Your task to perform on an android device: Go to wifi settings Image 0: 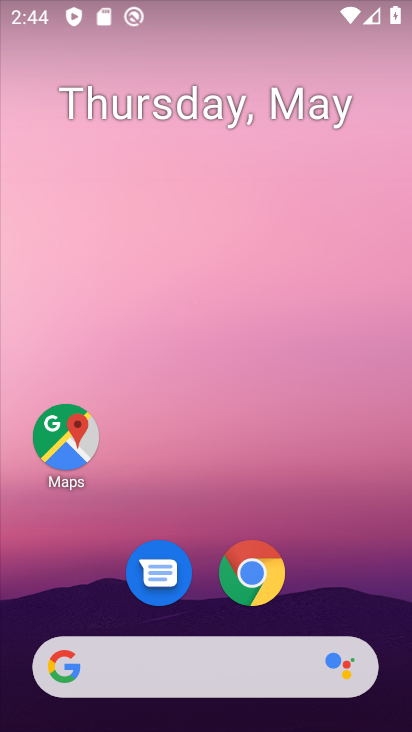
Step 0: drag from (213, 551) to (274, 266)
Your task to perform on an android device: Go to wifi settings Image 1: 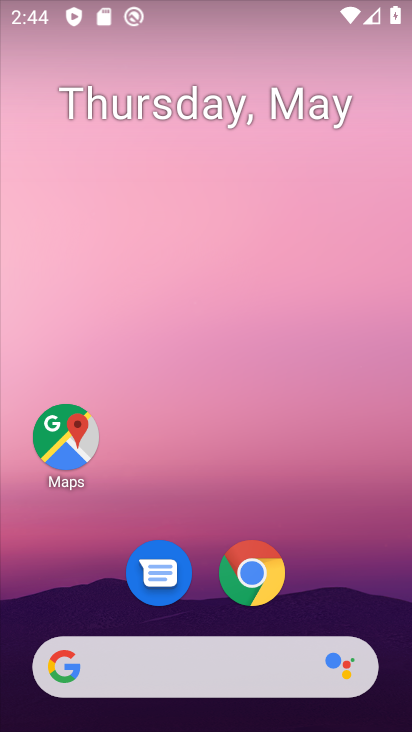
Step 1: drag from (201, 537) to (232, 249)
Your task to perform on an android device: Go to wifi settings Image 2: 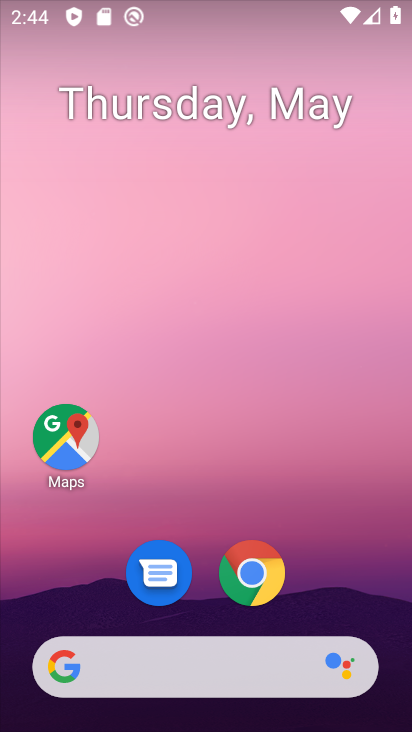
Step 2: drag from (169, 631) to (229, 172)
Your task to perform on an android device: Go to wifi settings Image 3: 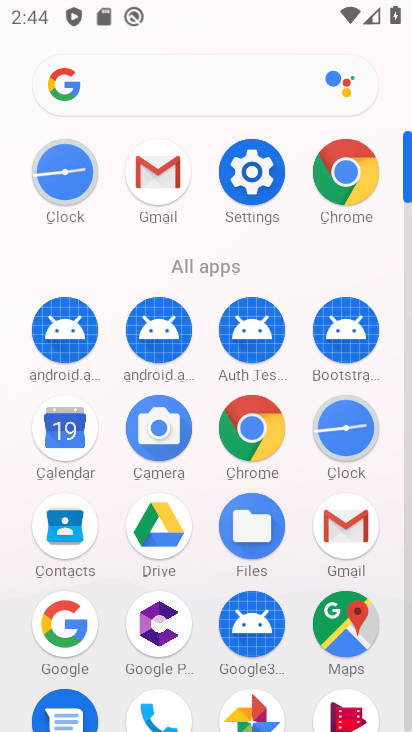
Step 3: click (239, 169)
Your task to perform on an android device: Go to wifi settings Image 4: 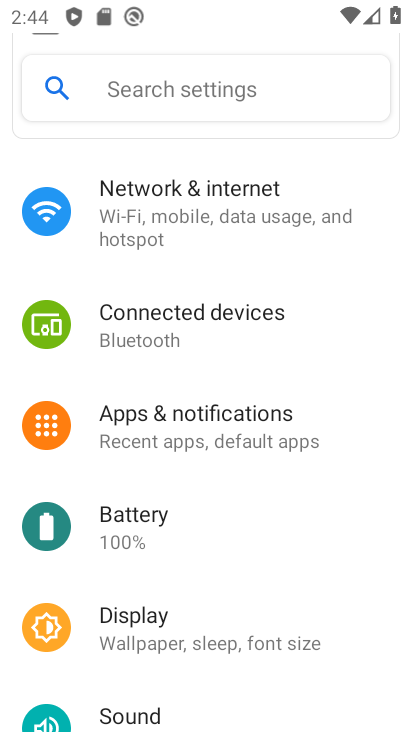
Step 4: click (221, 208)
Your task to perform on an android device: Go to wifi settings Image 5: 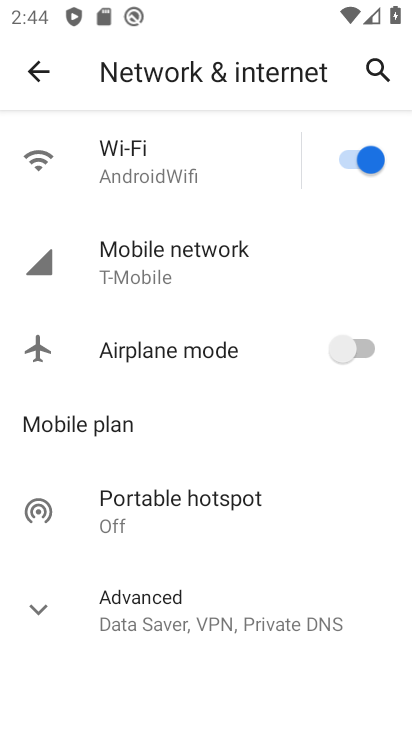
Step 5: click (158, 172)
Your task to perform on an android device: Go to wifi settings Image 6: 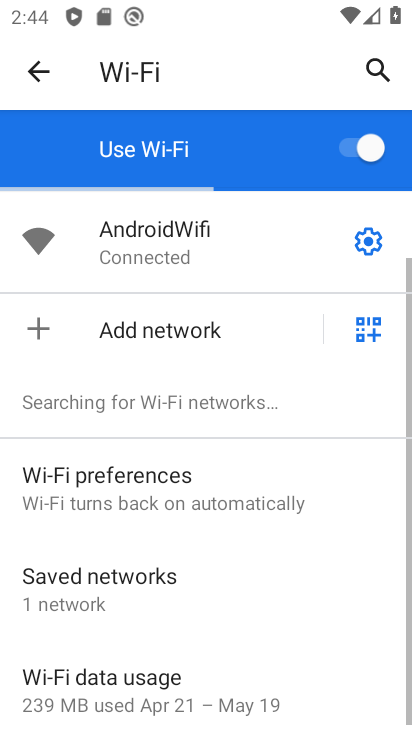
Step 6: click (352, 243)
Your task to perform on an android device: Go to wifi settings Image 7: 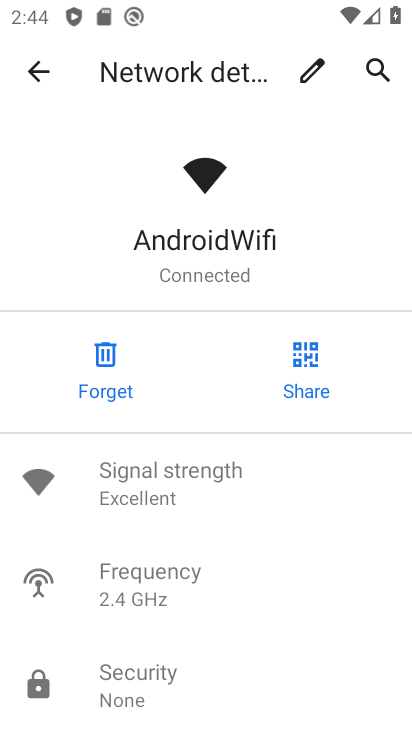
Step 7: drag from (101, 679) to (130, 283)
Your task to perform on an android device: Go to wifi settings Image 8: 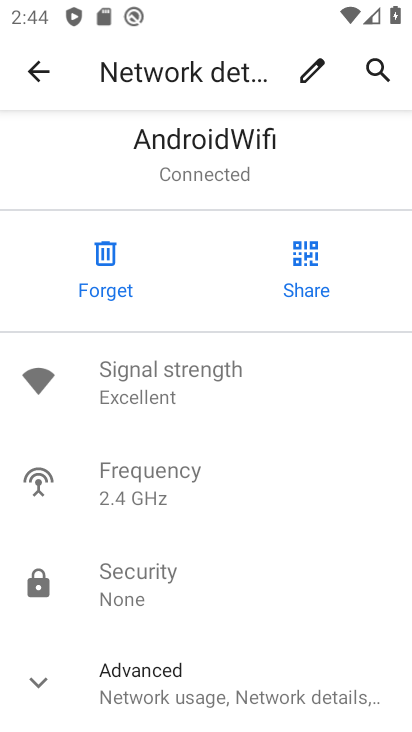
Step 8: click (124, 677)
Your task to perform on an android device: Go to wifi settings Image 9: 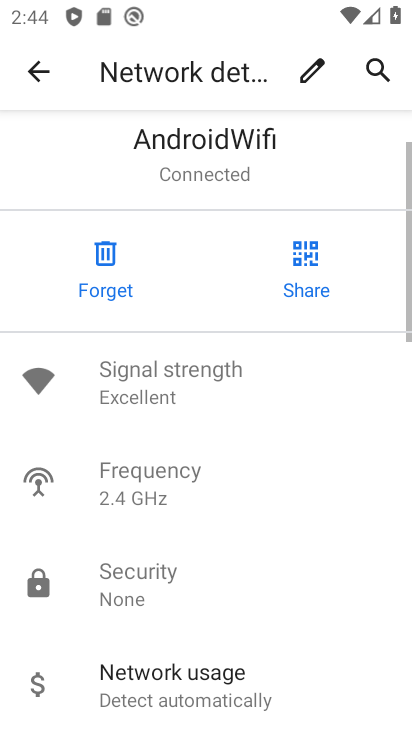
Step 9: task complete